Your task to perform on an android device: stop showing notifications on the lock screen Image 0: 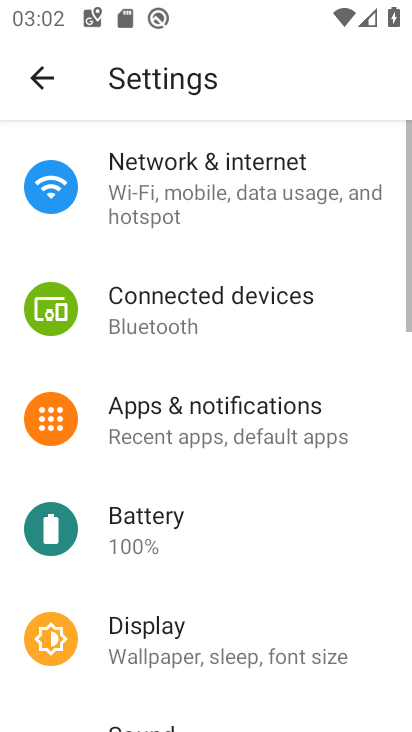
Step 0: press home button
Your task to perform on an android device: stop showing notifications on the lock screen Image 1: 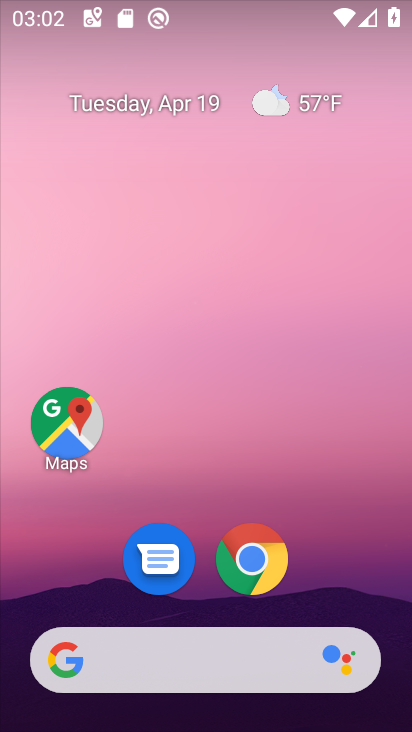
Step 1: drag from (200, 417) to (207, 109)
Your task to perform on an android device: stop showing notifications on the lock screen Image 2: 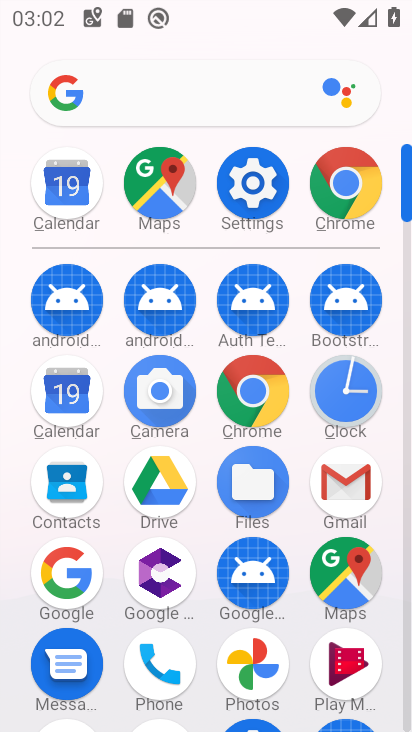
Step 2: click (252, 172)
Your task to perform on an android device: stop showing notifications on the lock screen Image 3: 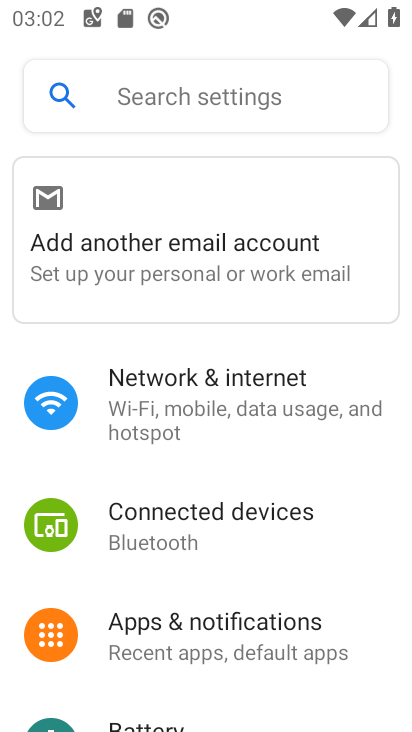
Step 3: click (250, 628)
Your task to perform on an android device: stop showing notifications on the lock screen Image 4: 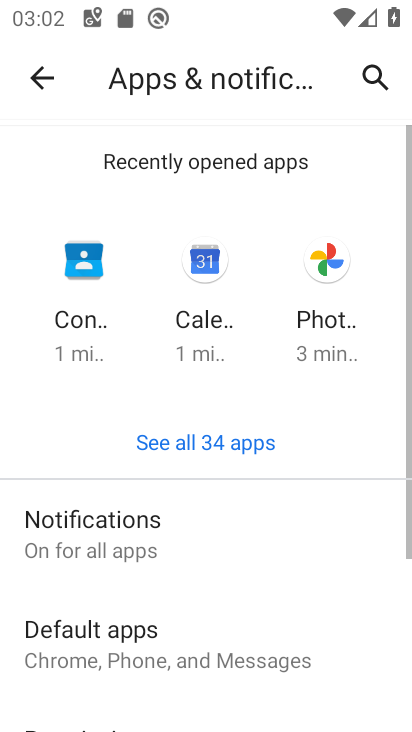
Step 4: click (162, 527)
Your task to perform on an android device: stop showing notifications on the lock screen Image 5: 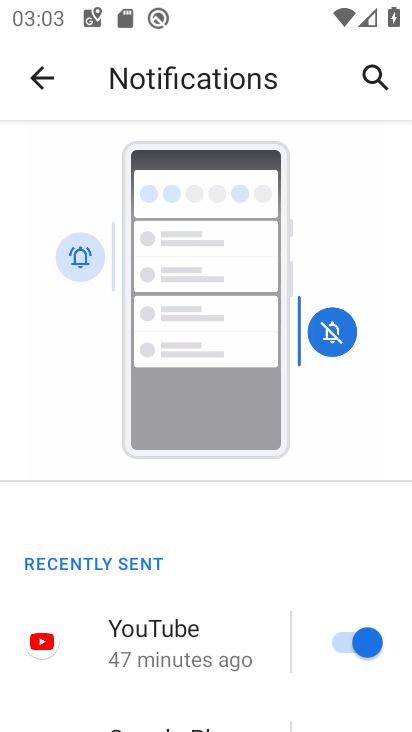
Step 5: drag from (241, 647) to (237, 86)
Your task to perform on an android device: stop showing notifications on the lock screen Image 6: 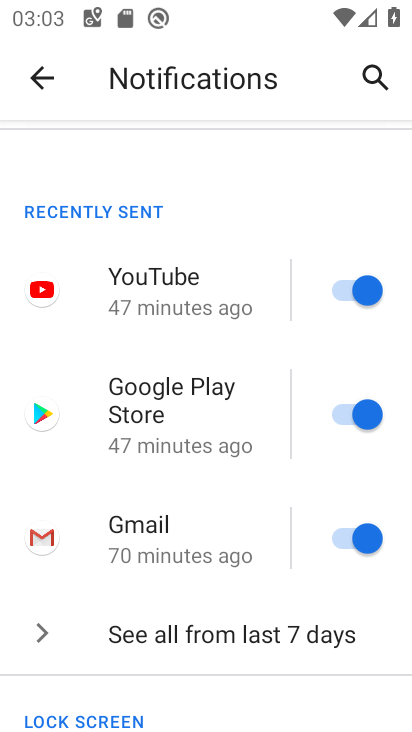
Step 6: drag from (225, 667) to (210, 146)
Your task to perform on an android device: stop showing notifications on the lock screen Image 7: 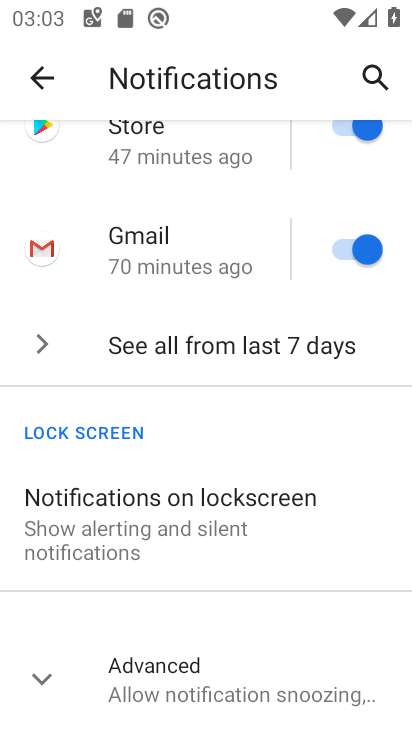
Step 7: click (181, 541)
Your task to perform on an android device: stop showing notifications on the lock screen Image 8: 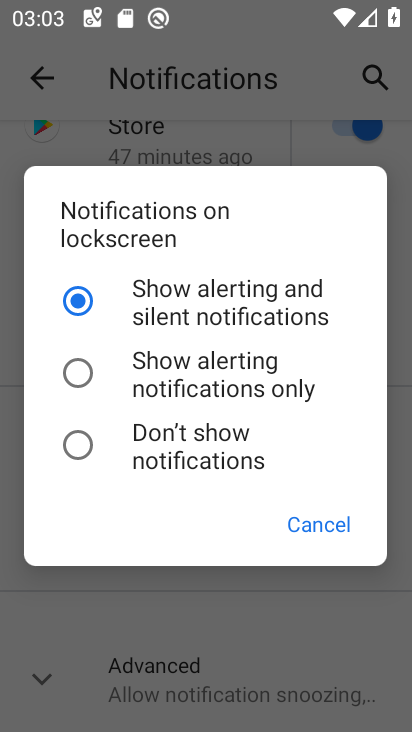
Step 8: click (88, 436)
Your task to perform on an android device: stop showing notifications on the lock screen Image 9: 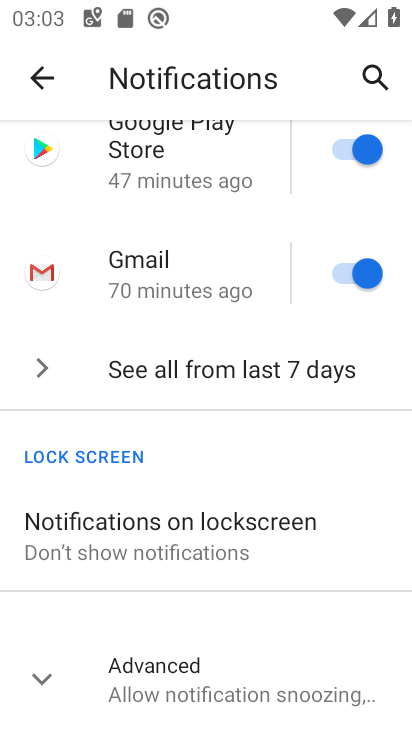
Step 9: click (140, 544)
Your task to perform on an android device: stop showing notifications on the lock screen Image 10: 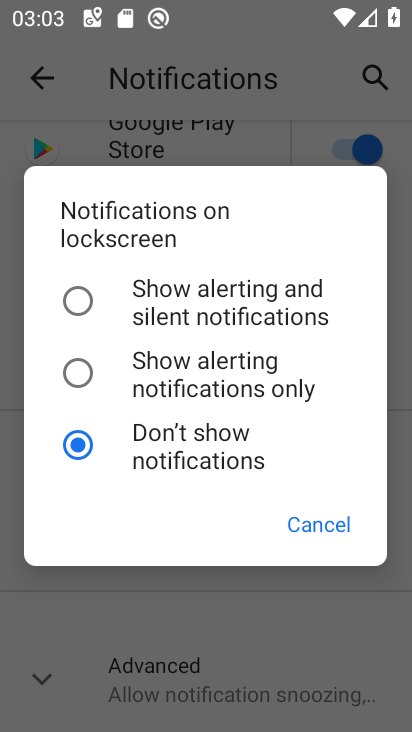
Step 10: click (77, 439)
Your task to perform on an android device: stop showing notifications on the lock screen Image 11: 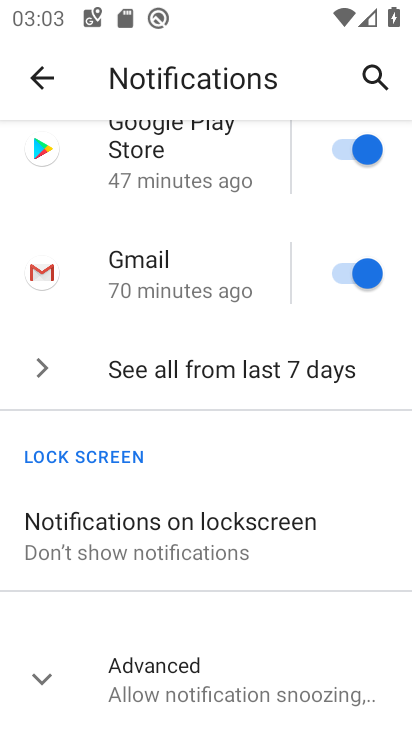
Step 11: task complete